Your task to perform on an android device: Open ESPN.com Image 0: 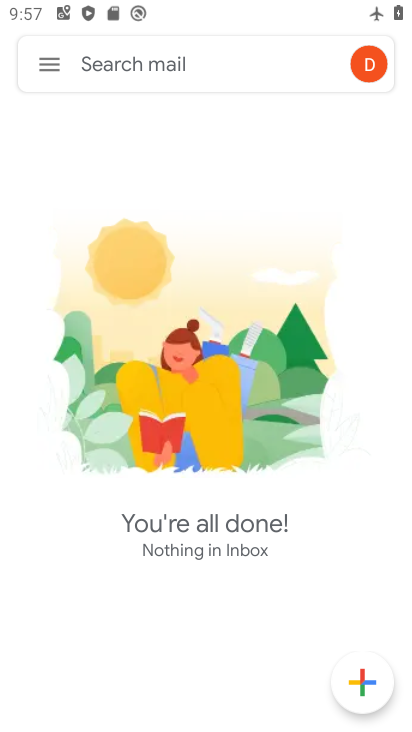
Step 0: press back button
Your task to perform on an android device: Open ESPN.com Image 1: 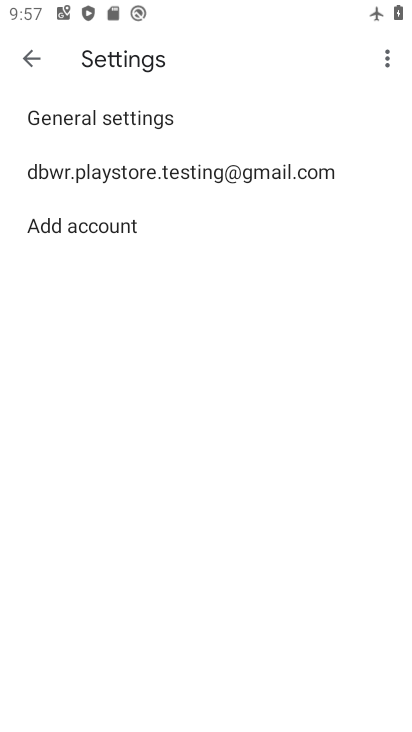
Step 1: press home button
Your task to perform on an android device: Open ESPN.com Image 2: 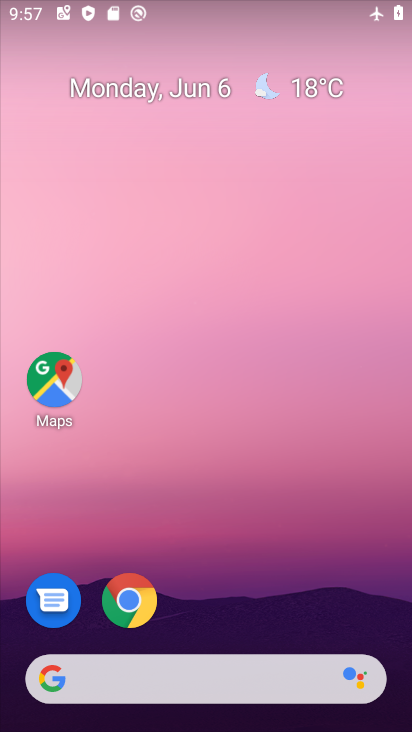
Step 2: click (126, 600)
Your task to perform on an android device: Open ESPN.com Image 3: 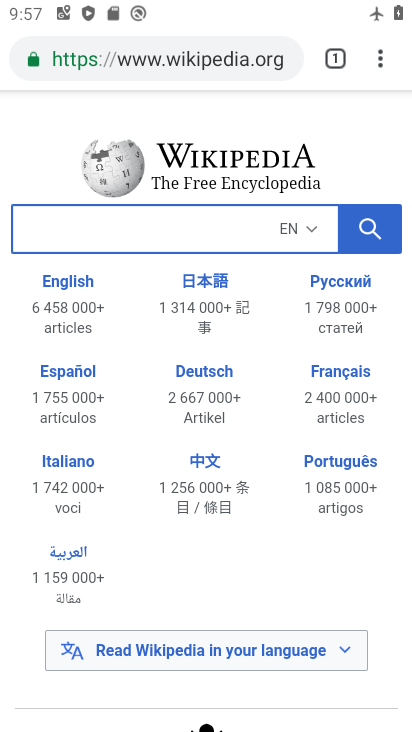
Step 3: click (179, 62)
Your task to perform on an android device: Open ESPN.com Image 4: 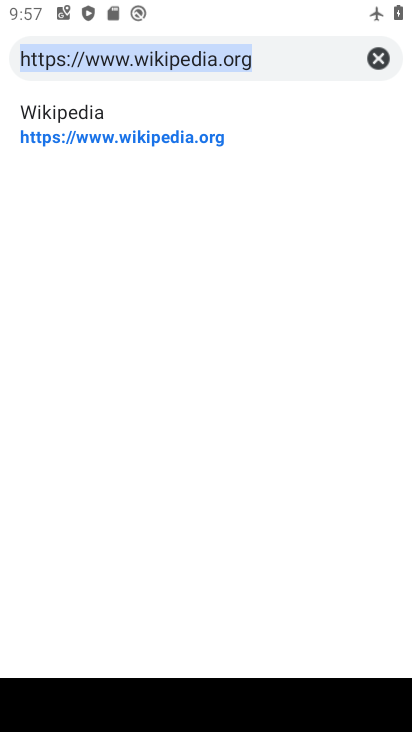
Step 4: click (371, 55)
Your task to perform on an android device: Open ESPN.com Image 5: 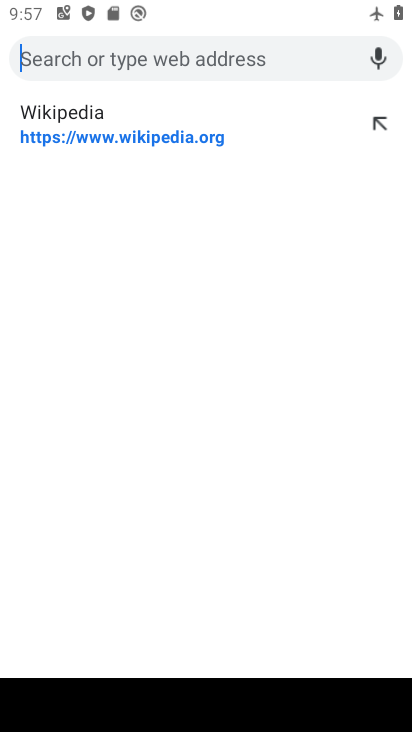
Step 5: type "ESPN.com"
Your task to perform on an android device: Open ESPN.com Image 6: 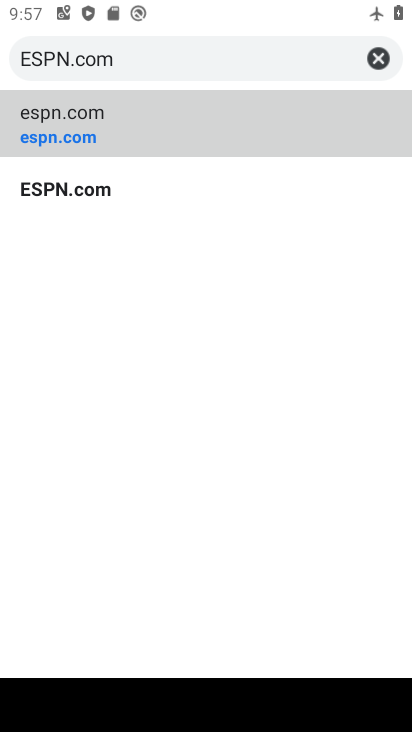
Step 6: click (99, 117)
Your task to perform on an android device: Open ESPN.com Image 7: 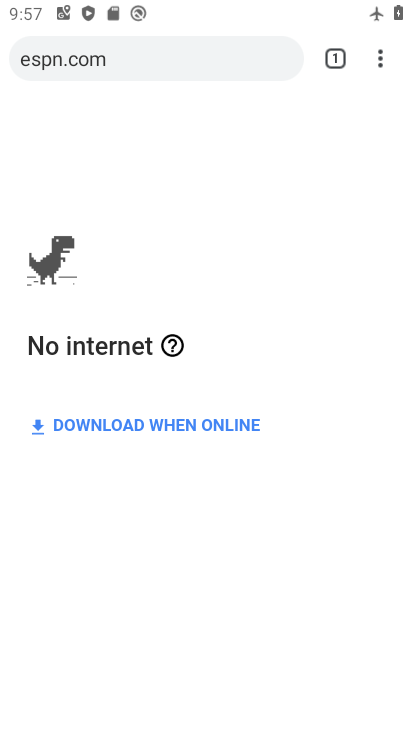
Step 7: task complete